Your task to perform on an android device: manage bookmarks in the chrome app Image 0: 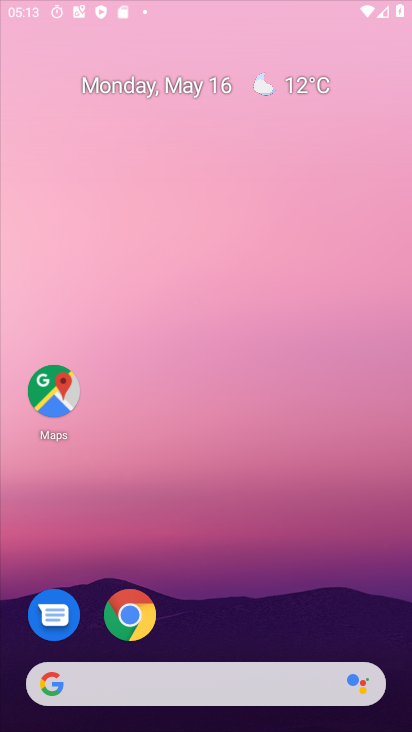
Step 0: drag from (354, 544) to (177, 121)
Your task to perform on an android device: manage bookmarks in the chrome app Image 1: 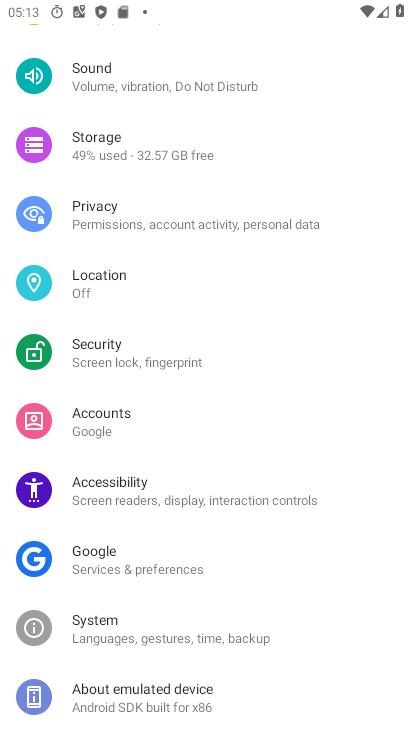
Step 1: press back button
Your task to perform on an android device: manage bookmarks in the chrome app Image 2: 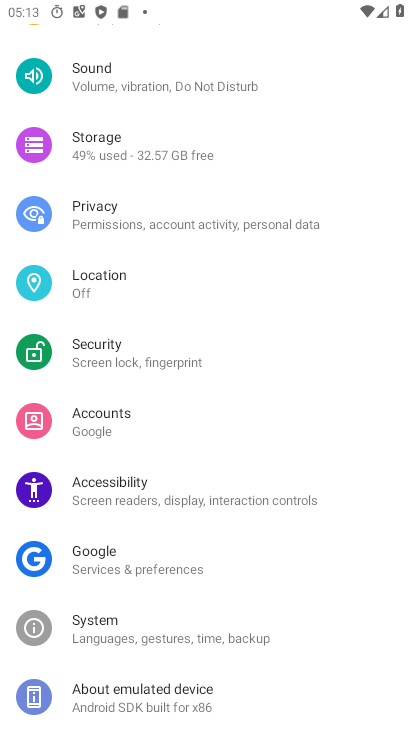
Step 2: press back button
Your task to perform on an android device: manage bookmarks in the chrome app Image 3: 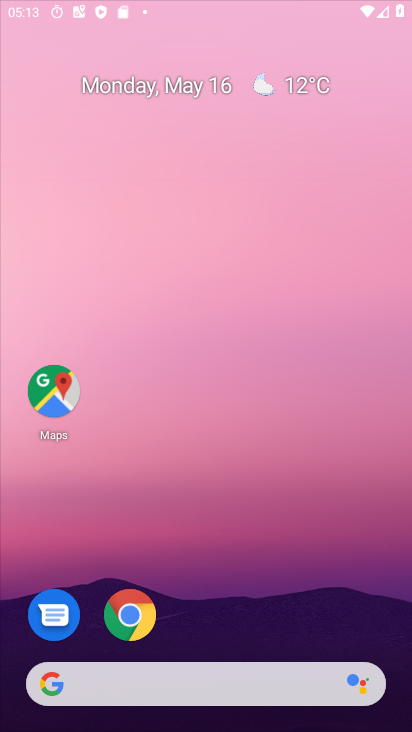
Step 3: press back button
Your task to perform on an android device: manage bookmarks in the chrome app Image 4: 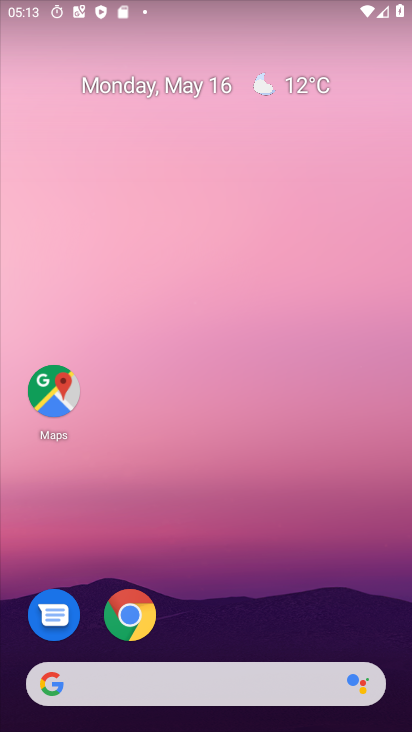
Step 4: drag from (252, 556) to (76, 2)
Your task to perform on an android device: manage bookmarks in the chrome app Image 5: 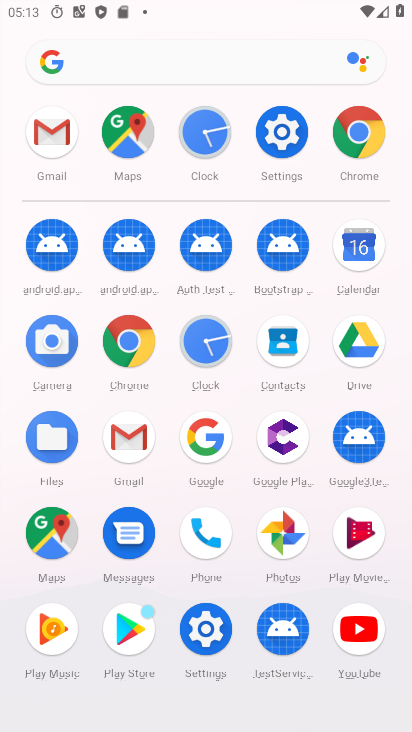
Step 5: click (365, 134)
Your task to perform on an android device: manage bookmarks in the chrome app Image 6: 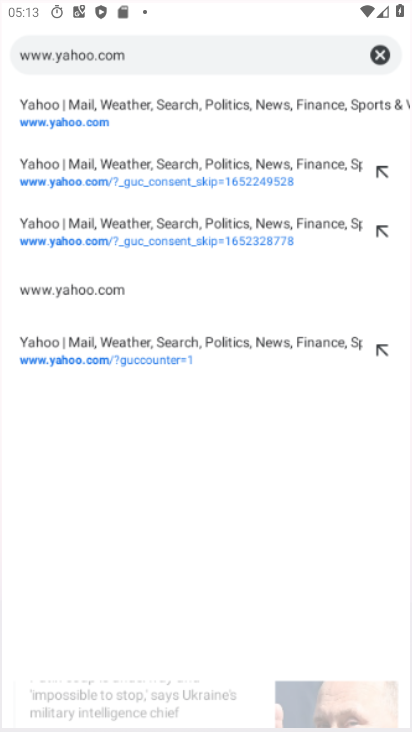
Step 6: click (367, 133)
Your task to perform on an android device: manage bookmarks in the chrome app Image 7: 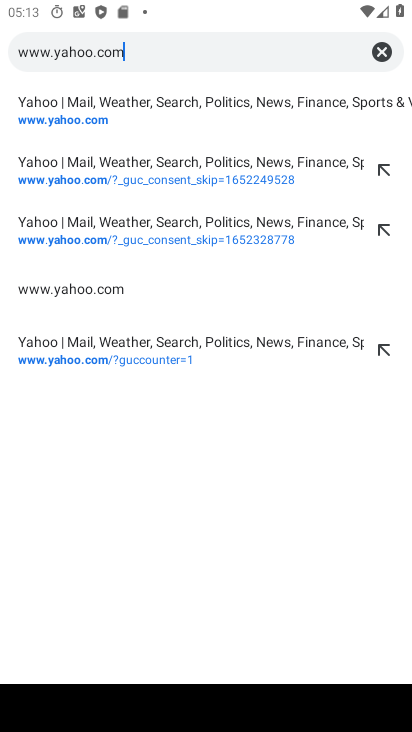
Step 7: click (56, 118)
Your task to perform on an android device: manage bookmarks in the chrome app Image 8: 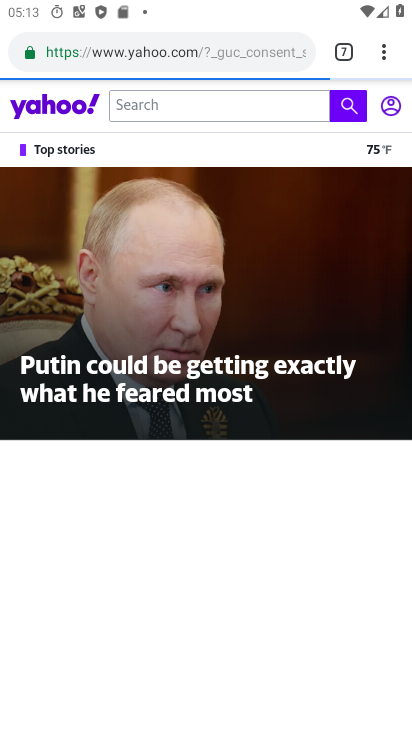
Step 8: drag from (379, 54) to (190, 257)
Your task to perform on an android device: manage bookmarks in the chrome app Image 9: 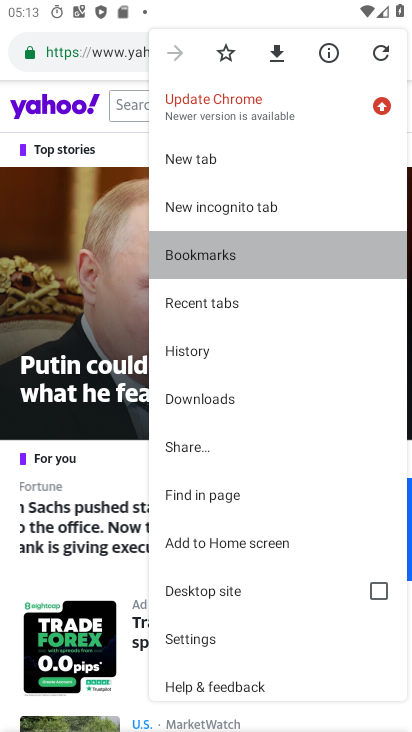
Step 9: click (198, 255)
Your task to perform on an android device: manage bookmarks in the chrome app Image 10: 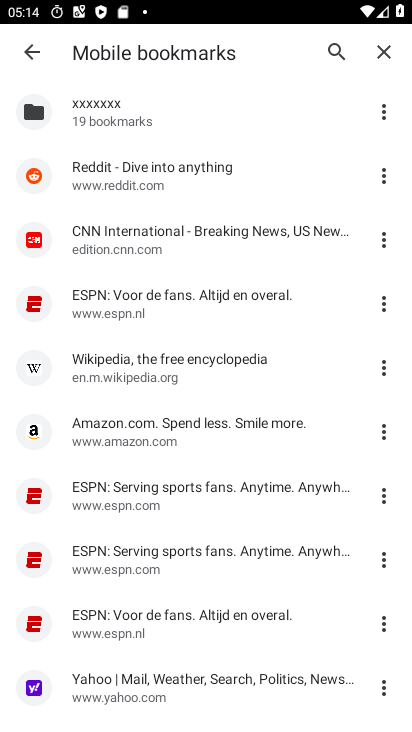
Step 10: click (387, 100)
Your task to perform on an android device: manage bookmarks in the chrome app Image 11: 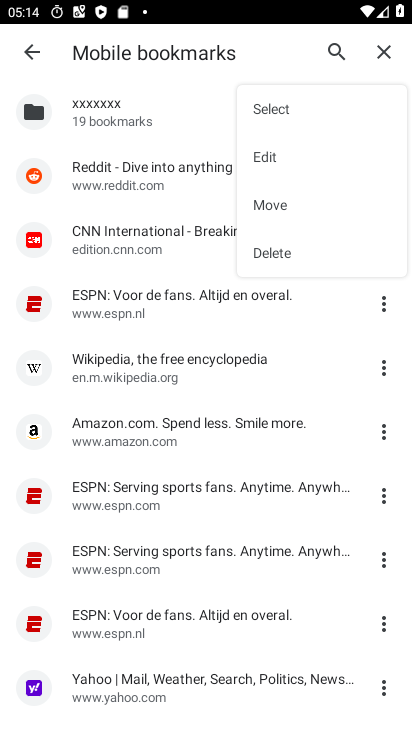
Step 11: click (277, 251)
Your task to perform on an android device: manage bookmarks in the chrome app Image 12: 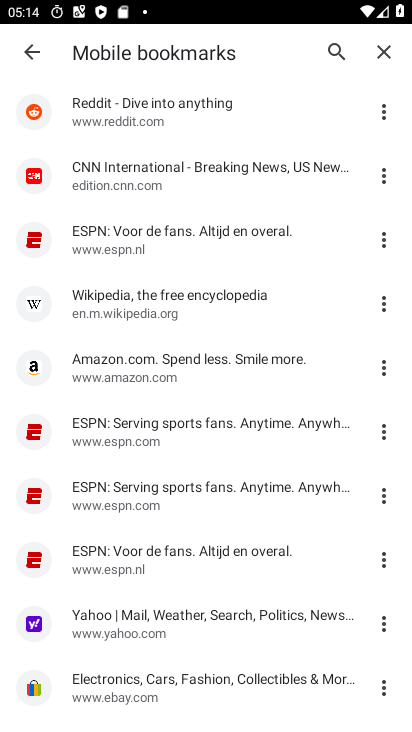
Step 12: task complete